Your task to perform on an android device: toggle wifi Image 0: 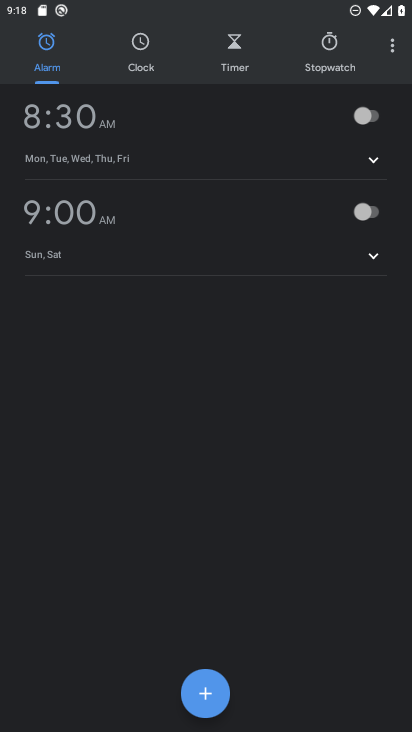
Step 0: press home button
Your task to perform on an android device: toggle wifi Image 1: 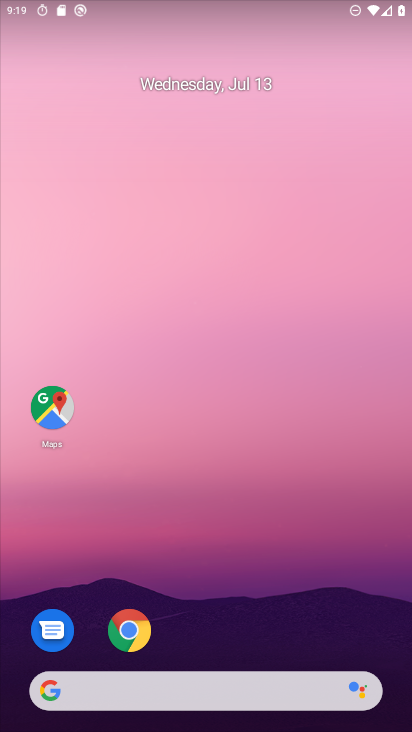
Step 1: drag from (156, 1) to (167, 436)
Your task to perform on an android device: toggle wifi Image 2: 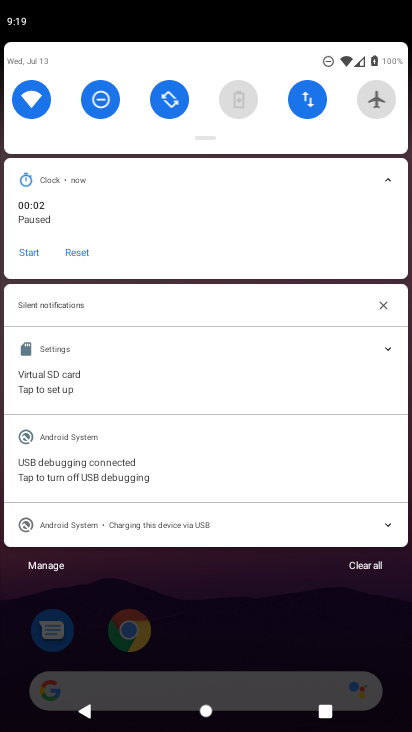
Step 2: click (33, 95)
Your task to perform on an android device: toggle wifi Image 3: 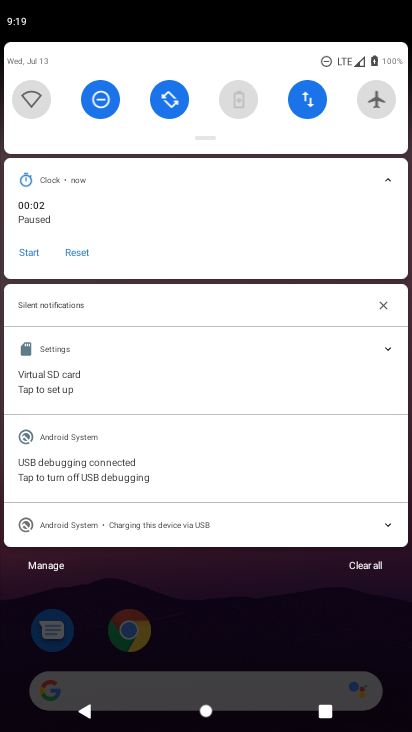
Step 3: task complete